Your task to perform on an android device: Go to notification settings Image 0: 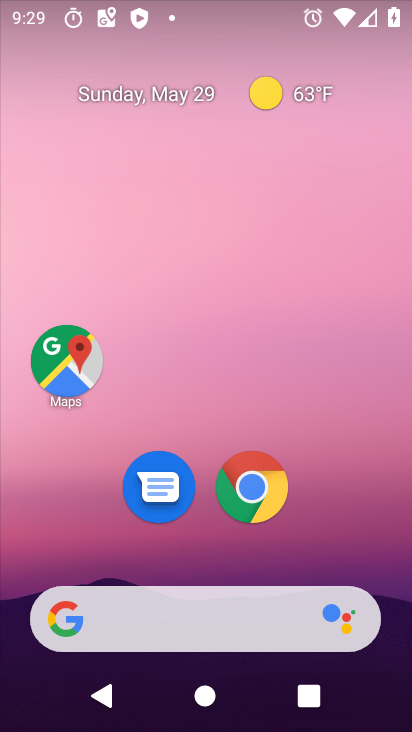
Step 0: drag from (224, 621) to (181, 158)
Your task to perform on an android device: Go to notification settings Image 1: 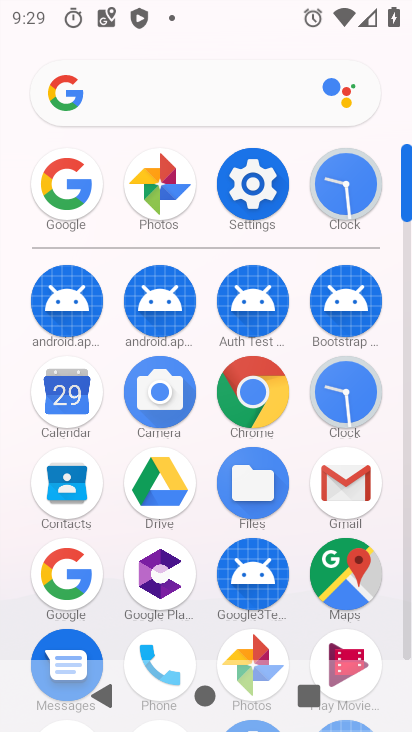
Step 1: drag from (238, 446) to (244, 333)
Your task to perform on an android device: Go to notification settings Image 2: 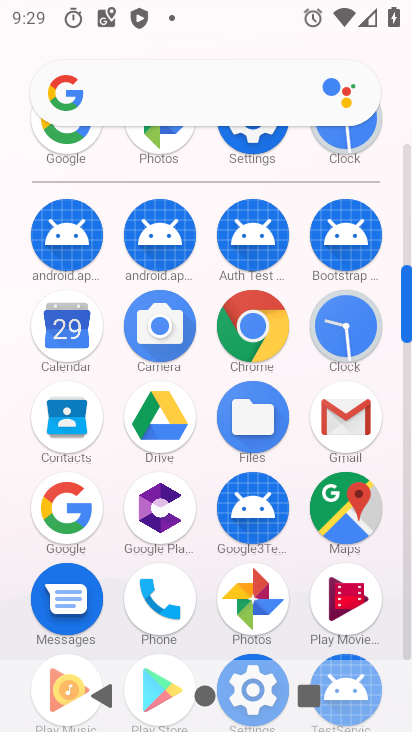
Step 2: drag from (300, 586) to (281, 270)
Your task to perform on an android device: Go to notification settings Image 3: 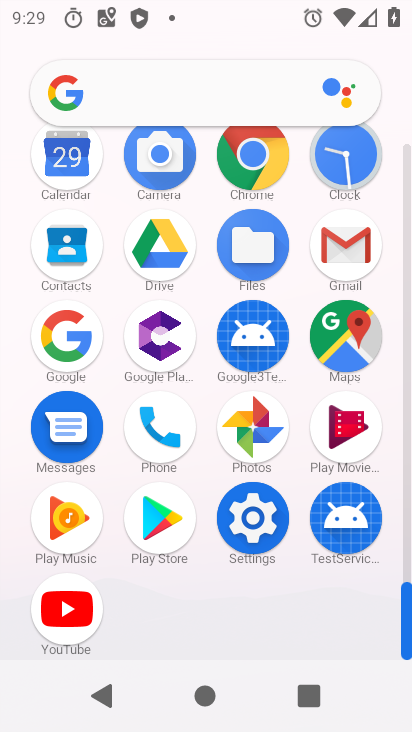
Step 3: click (244, 535)
Your task to perform on an android device: Go to notification settings Image 4: 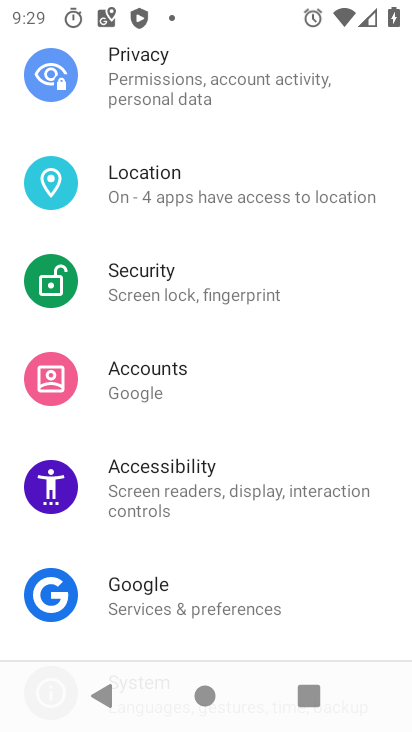
Step 4: drag from (243, 214) to (246, 636)
Your task to perform on an android device: Go to notification settings Image 5: 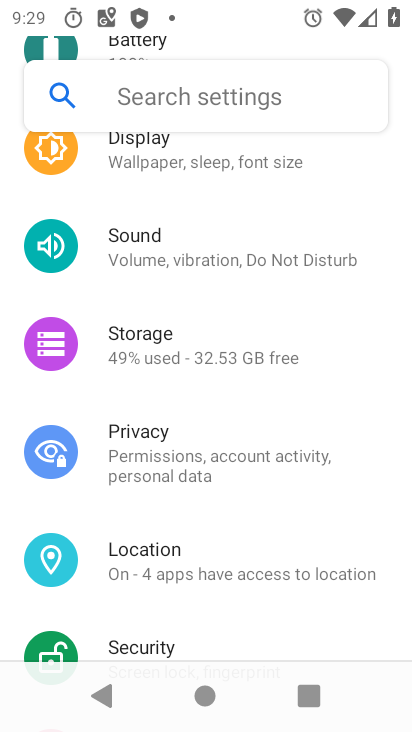
Step 5: drag from (231, 318) to (252, 714)
Your task to perform on an android device: Go to notification settings Image 6: 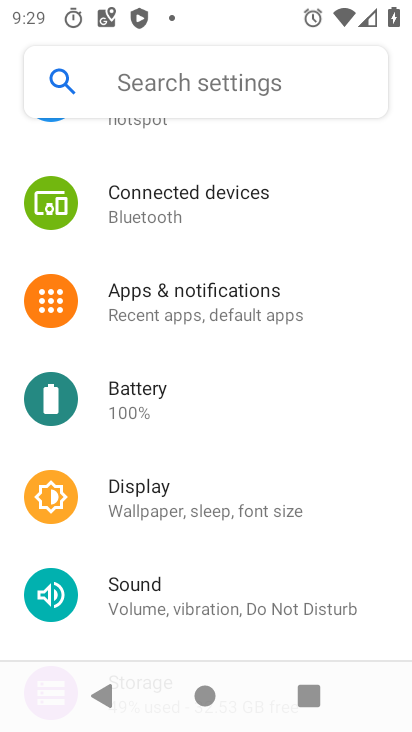
Step 6: click (290, 313)
Your task to perform on an android device: Go to notification settings Image 7: 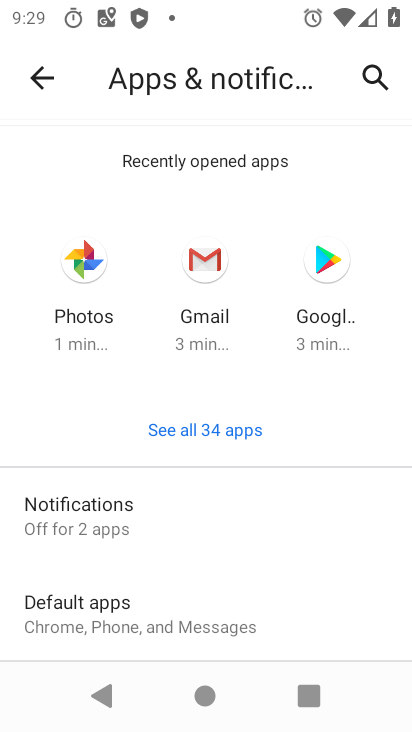
Step 7: click (187, 512)
Your task to perform on an android device: Go to notification settings Image 8: 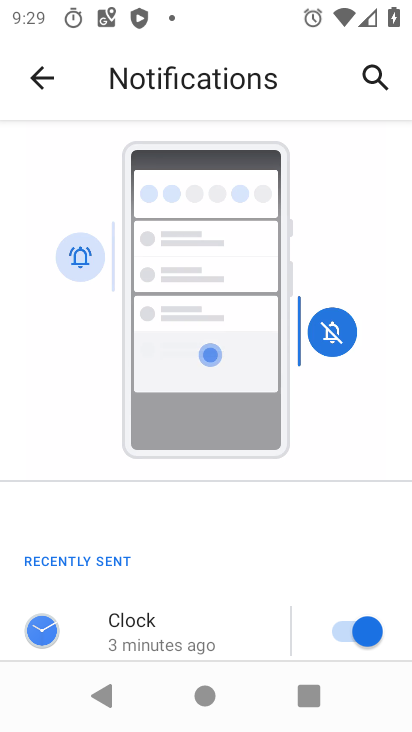
Step 8: task complete